Your task to perform on an android device: move a message to another label in the gmail app Image 0: 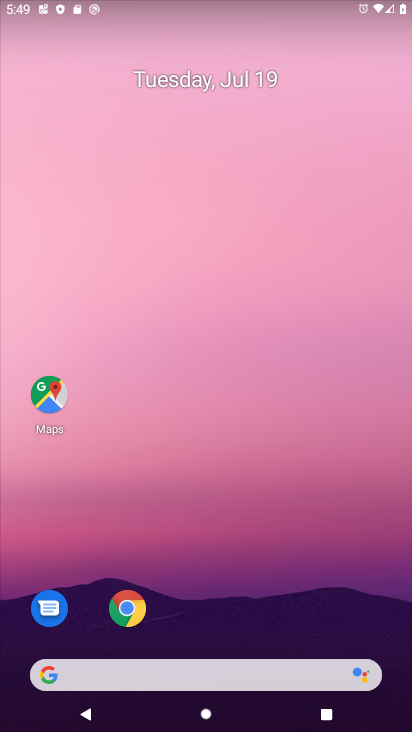
Step 0: drag from (253, 601) to (227, 152)
Your task to perform on an android device: move a message to another label in the gmail app Image 1: 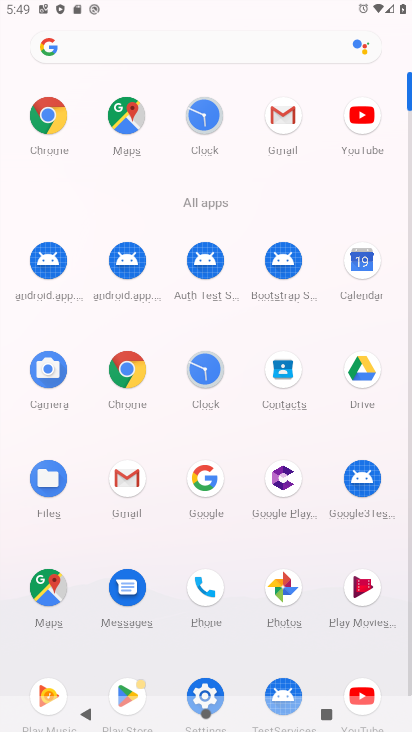
Step 1: click (130, 483)
Your task to perform on an android device: move a message to another label in the gmail app Image 2: 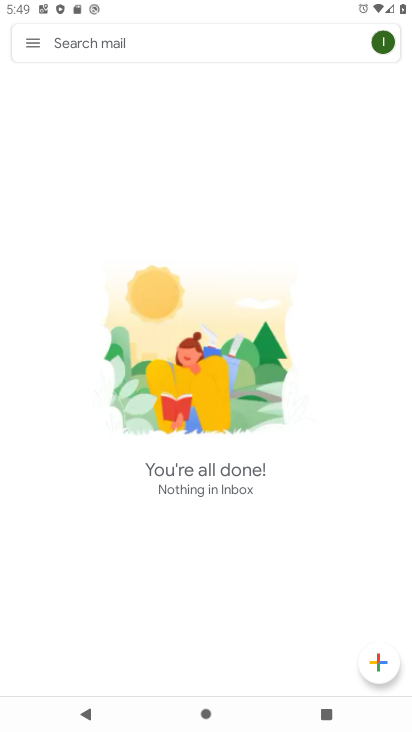
Step 2: click (31, 49)
Your task to perform on an android device: move a message to another label in the gmail app Image 3: 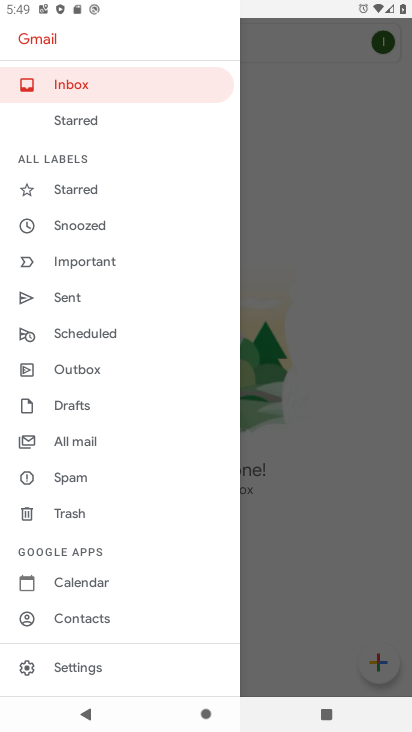
Step 3: click (102, 195)
Your task to perform on an android device: move a message to another label in the gmail app Image 4: 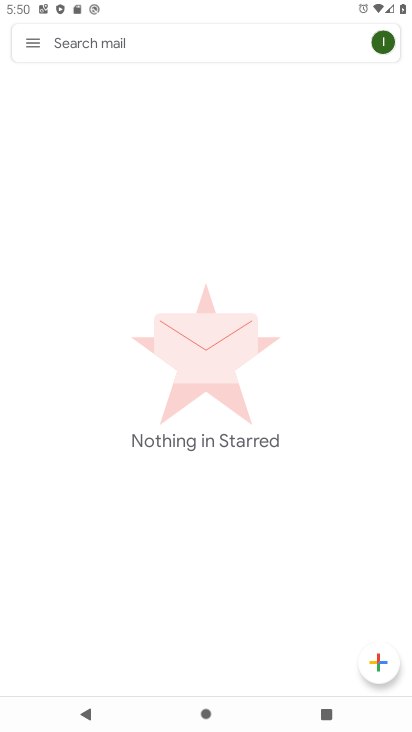
Step 4: task complete